Your task to perform on an android device: Open Reddit.com Image 0: 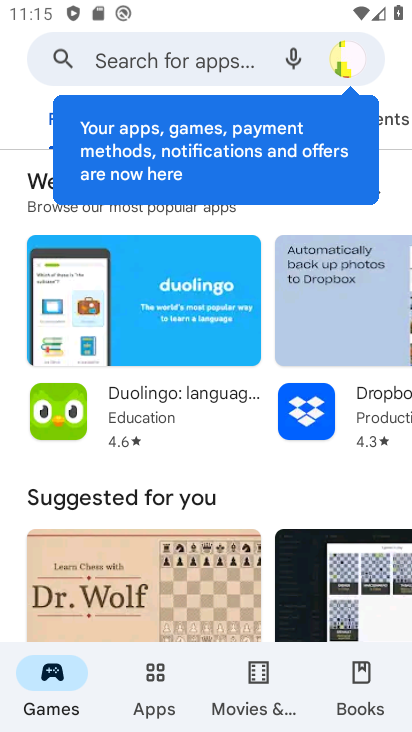
Step 0: press home button
Your task to perform on an android device: Open Reddit.com Image 1: 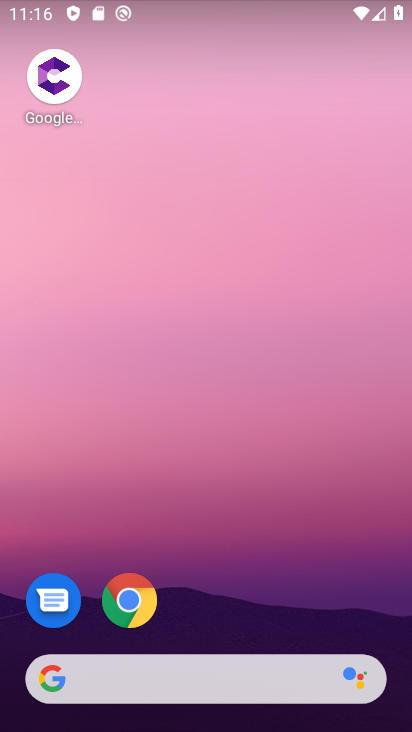
Step 1: click (129, 601)
Your task to perform on an android device: Open Reddit.com Image 2: 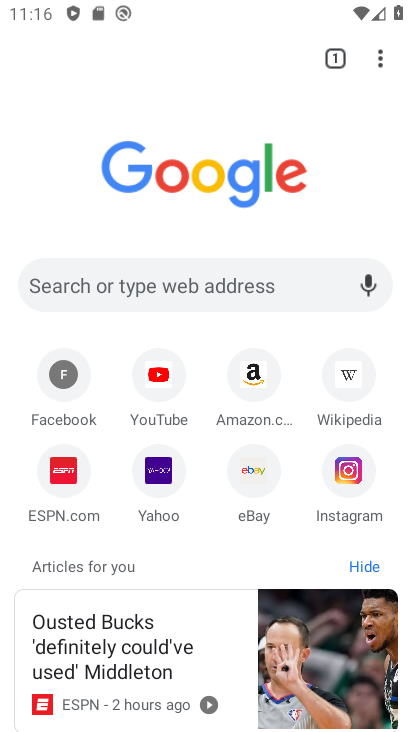
Step 2: click (161, 280)
Your task to perform on an android device: Open Reddit.com Image 3: 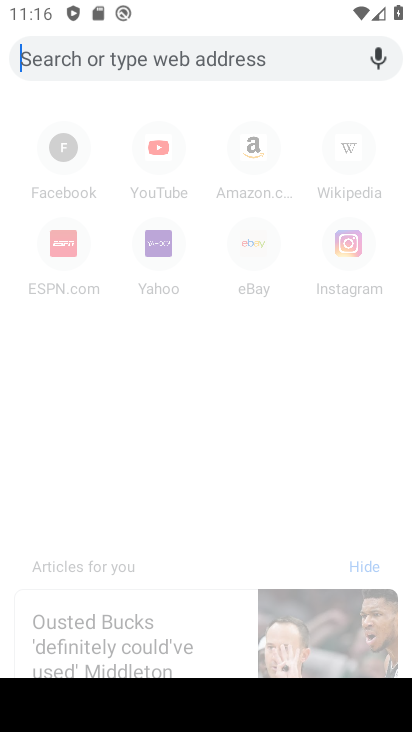
Step 3: type "reddit.com"
Your task to perform on an android device: Open Reddit.com Image 4: 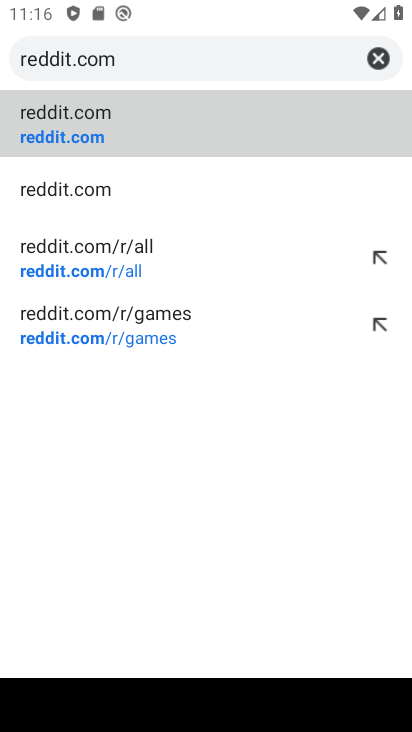
Step 4: click (82, 117)
Your task to perform on an android device: Open Reddit.com Image 5: 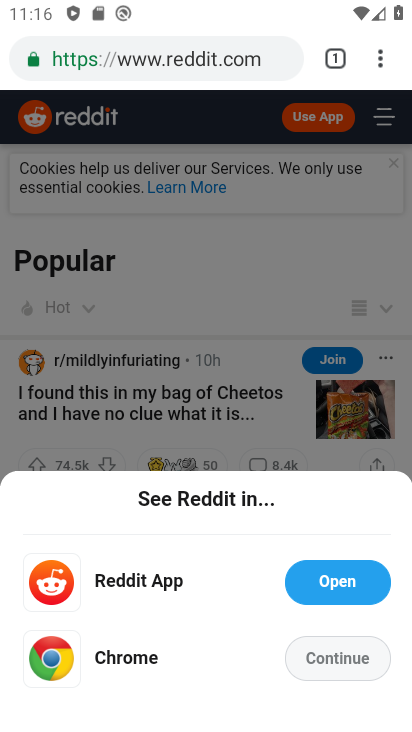
Step 5: task complete